Your task to perform on an android device: View the shopping cart on costco. Add bose soundsport free to the cart on costco, then select checkout. Image 0: 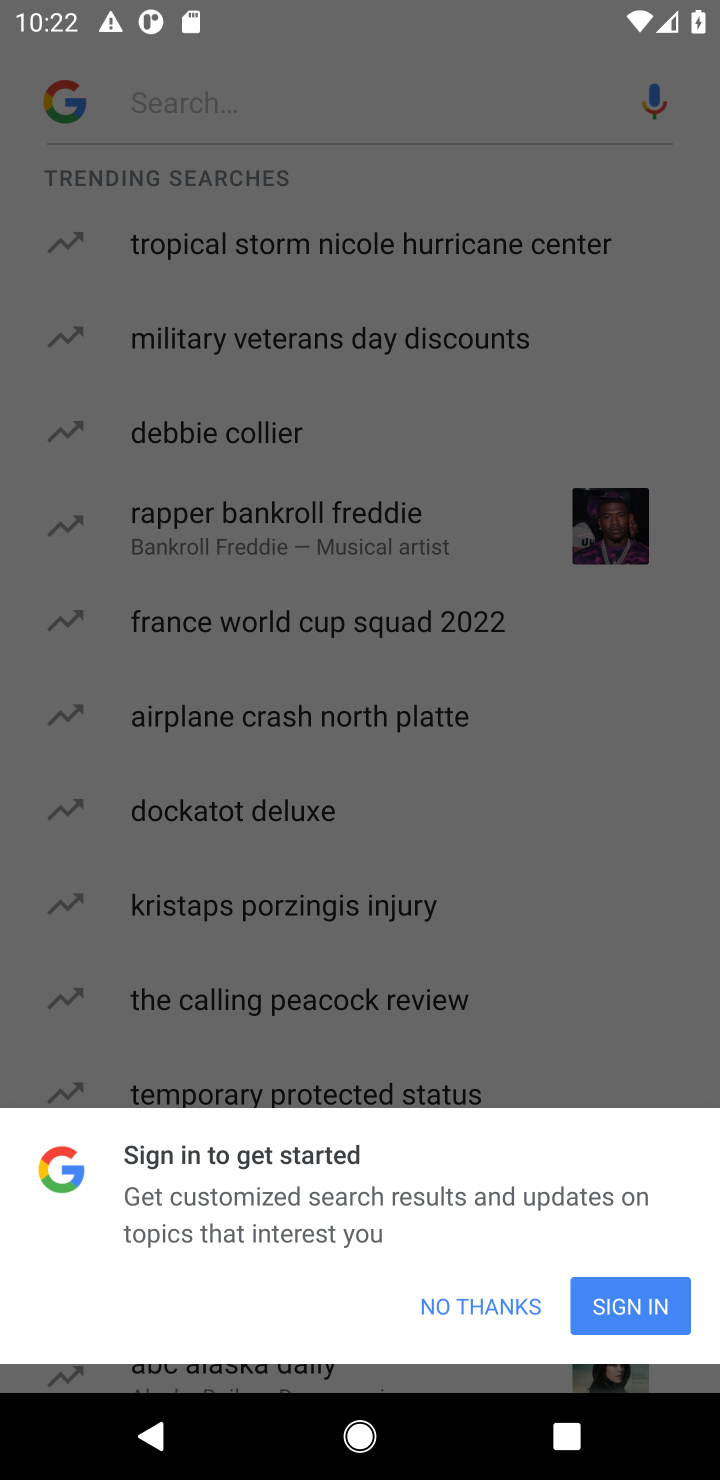
Step 0: press home button
Your task to perform on an android device: View the shopping cart on costco. Add bose soundsport free to the cart on costco, then select checkout. Image 1: 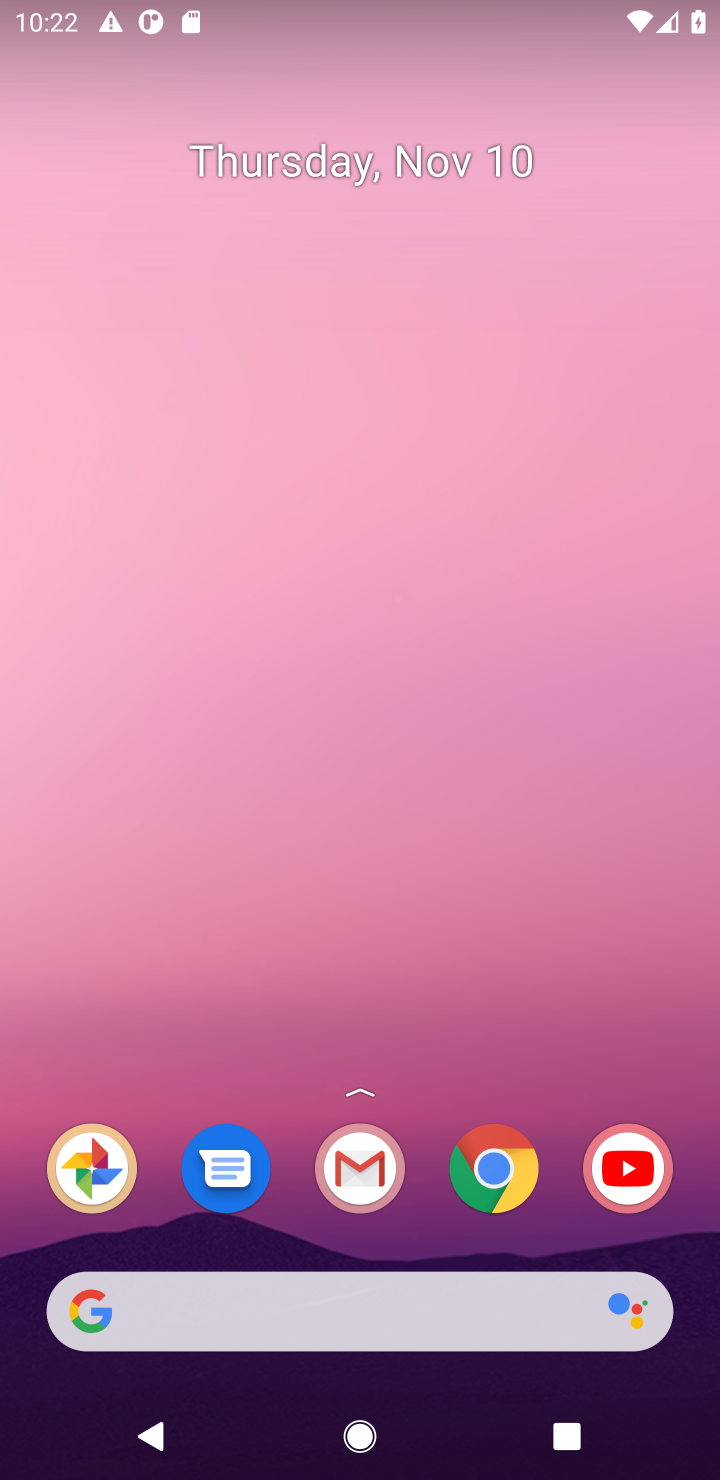
Step 1: click (502, 1184)
Your task to perform on an android device: View the shopping cart on costco. Add bose soundsport free to the cart on costco, then select checkout. Image 2: 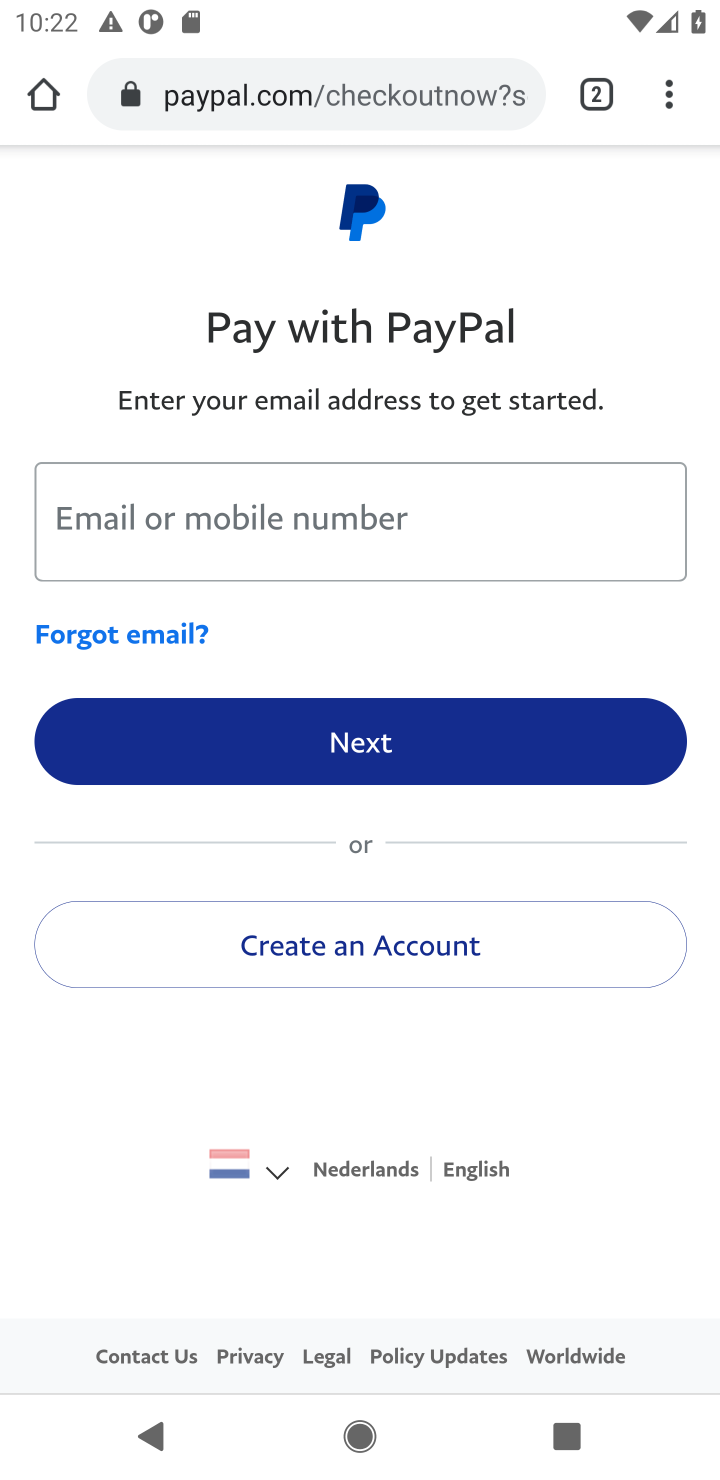
Step 2: click (287, 105)
Your task to perform on an android device: View the shopping cart on costco. Add bose soundsport free to the cart on costco, then select checkout. Image 3: 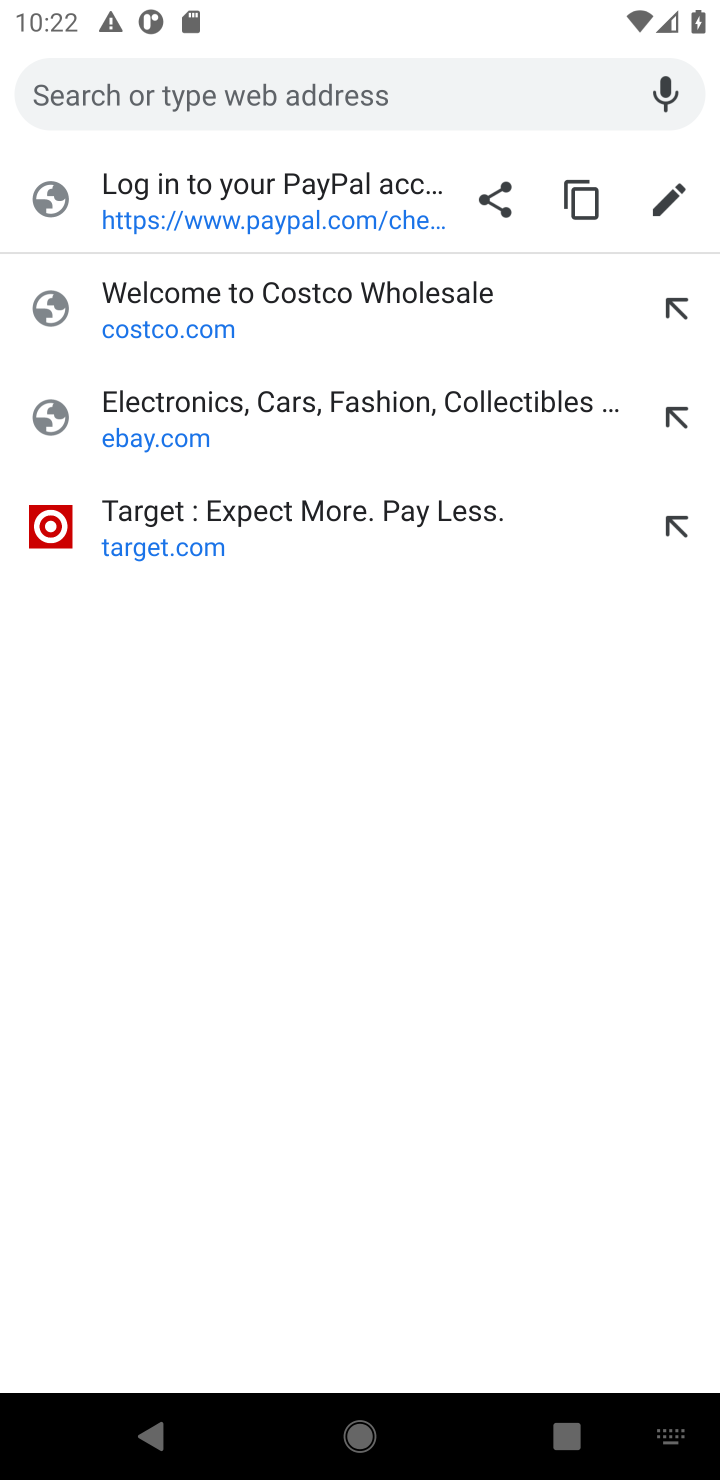
Step 3: click (176, 309)
Your task to perform on an android device: View the shopping cart on costco. Add bose soundsport free to the cart on costco, then select checkout. Image 4: 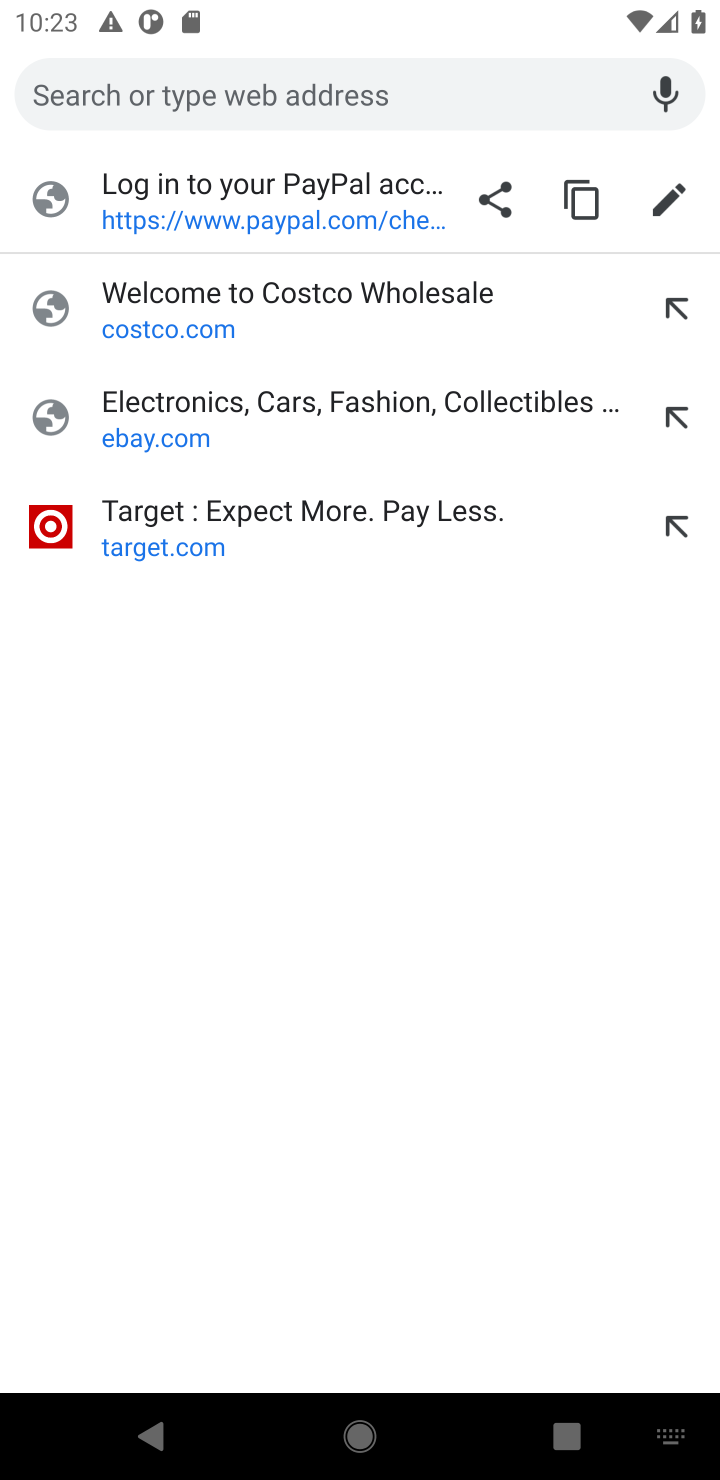
Step 4: click (176, 311)
Your task to perform on an android device: View the shopping cart on costco. Add bose soundsport free to the cart on costco, then select checkout. Image 5: 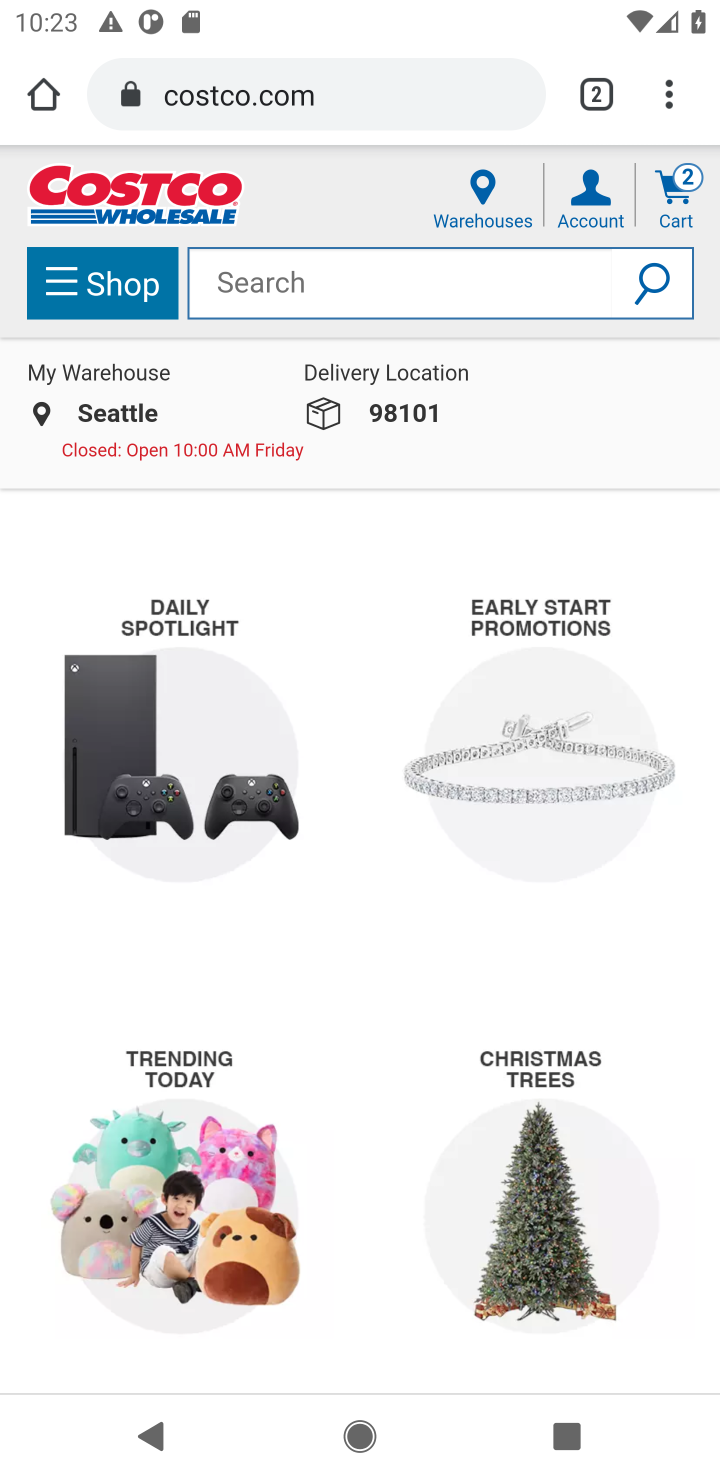
Step 5: click (666, 204)
Your task to perform on an android device: View the shopping cart on costco. Add bose soundsport free to the cart on costco, then select checkout. Image 6: 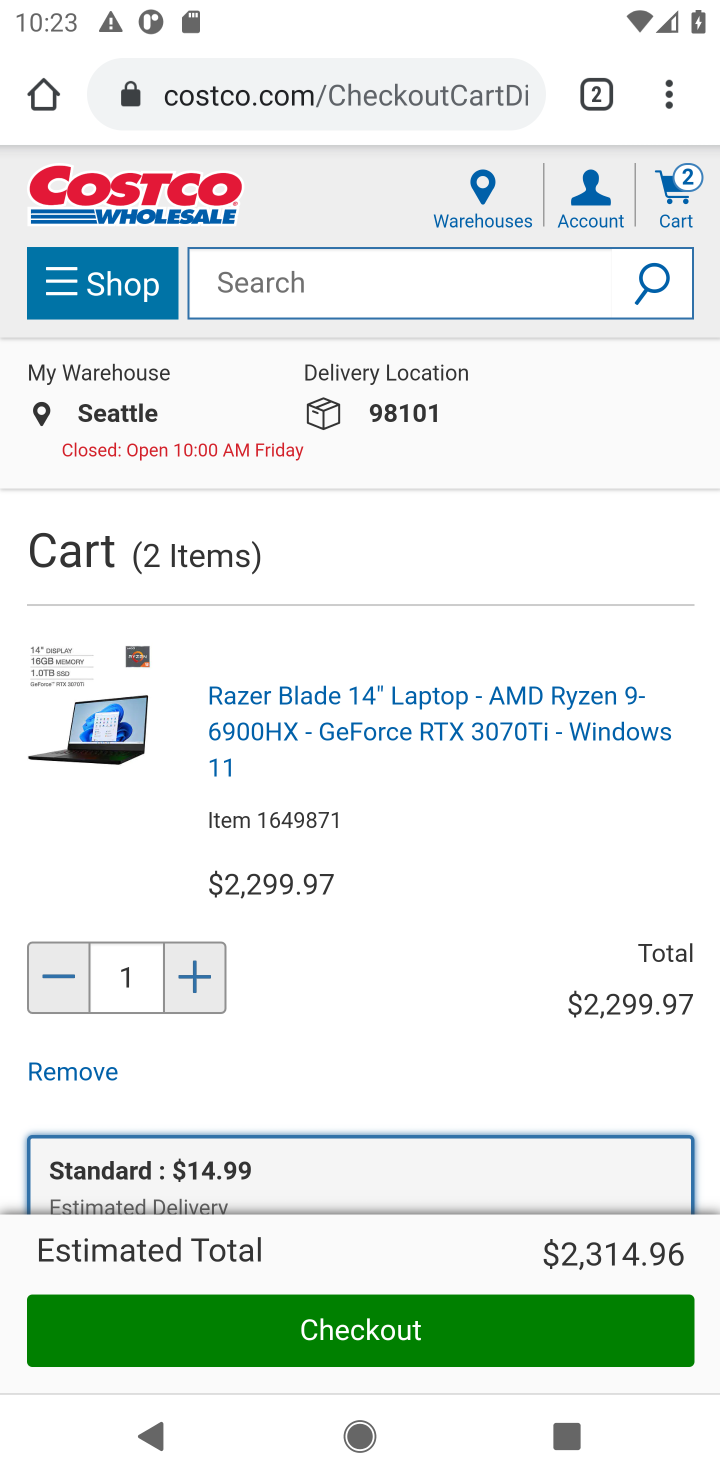
Step 6: click (282, 298)
Your task to perform on an android device: View the shopping cart on costco. Add bose soundsport free to the cart on costco, then select checkout. Image 7: 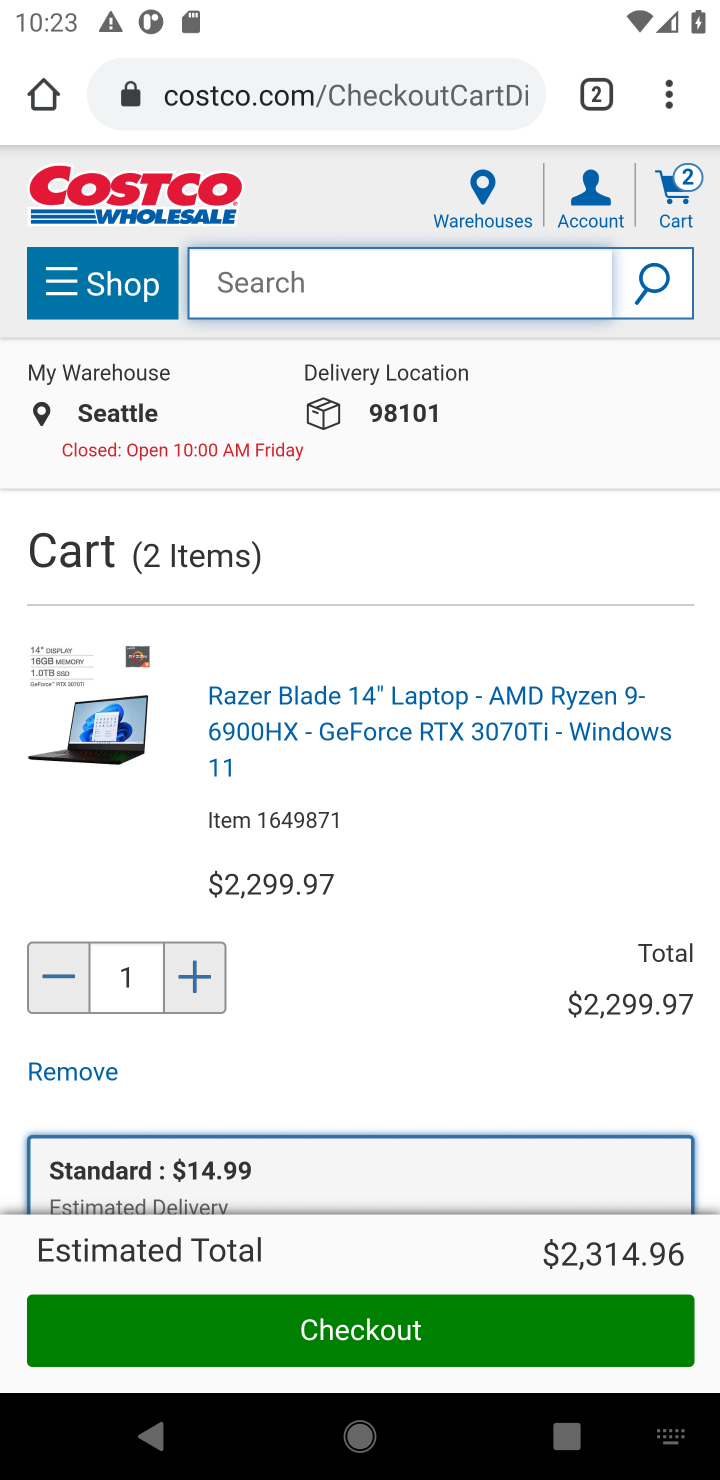
Step 7: type "bose soundsport free"
Your task to perform on an android device: View the shopping cart on costco. Add bose soundsport free to the cart on costco, then select checkout. Image 8: 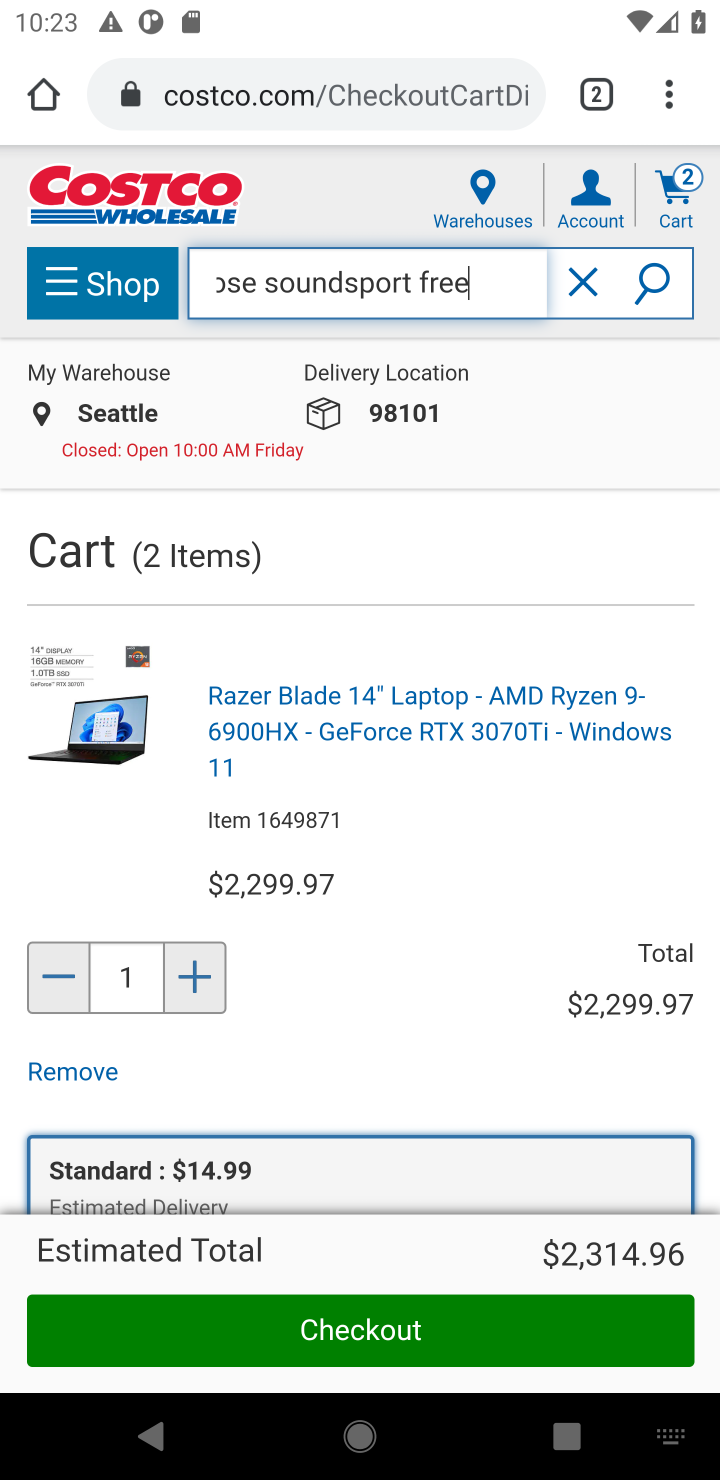
Step 8: click (642, 268)
Your task to perform on an android device: View the shopping cart on costco. Add bose soundsport free to the cart on costco, then select checkout. Image 9: 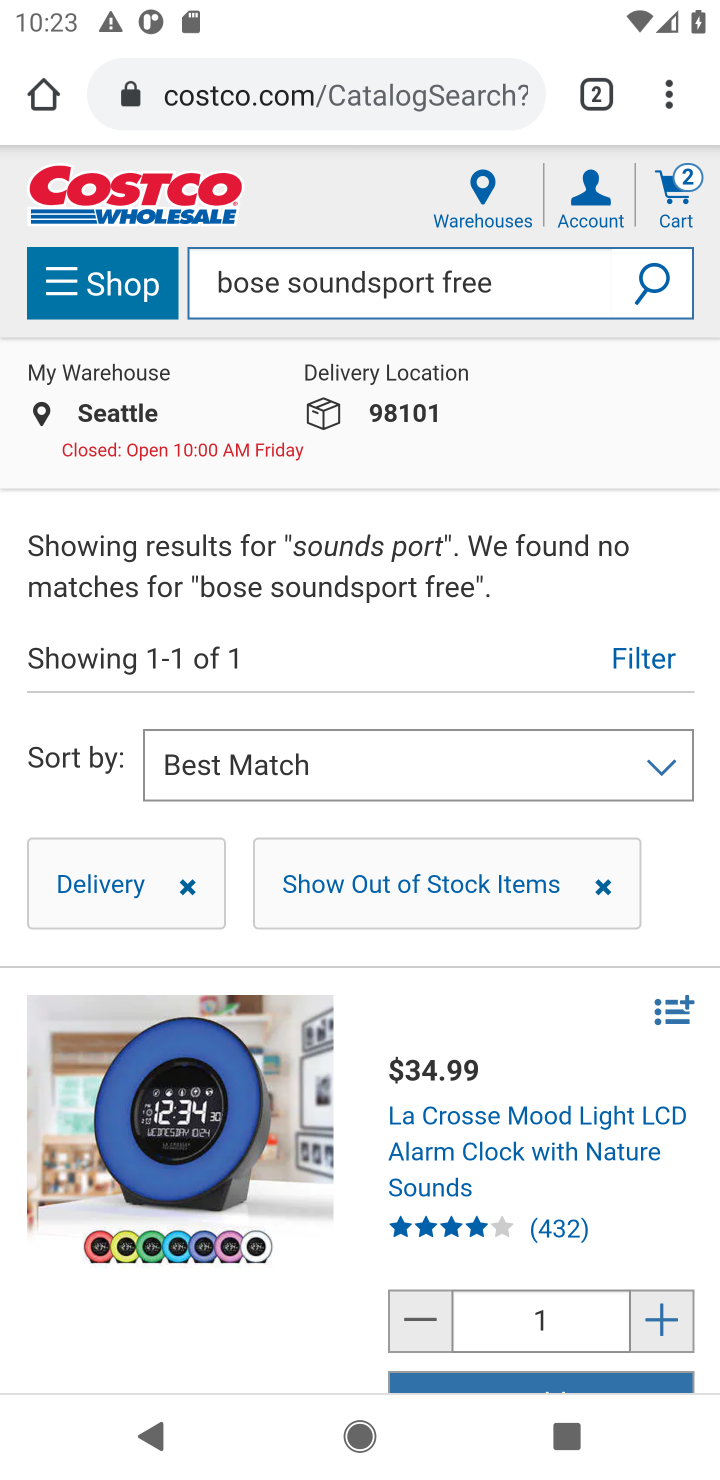
Step 9: task complete